Your task to perform on an android device: toggle location history Image 0: 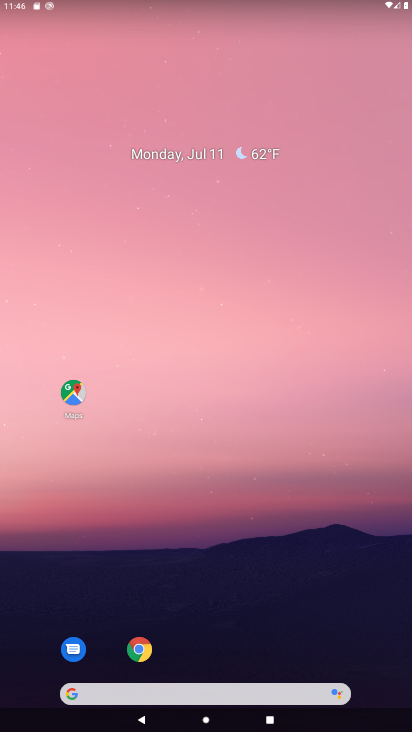
Step 0: click (75, 393)
Your task to perform on an android device: toggle location history Image 1: 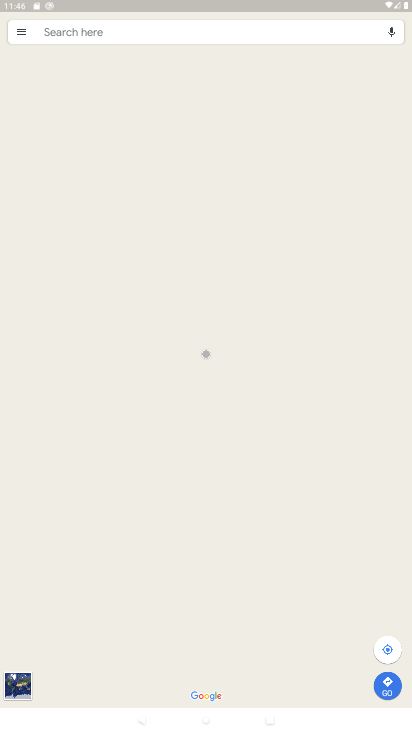
Step 1: click (19, 30)
Your task to perform on an android device: toggle location history Image 2: 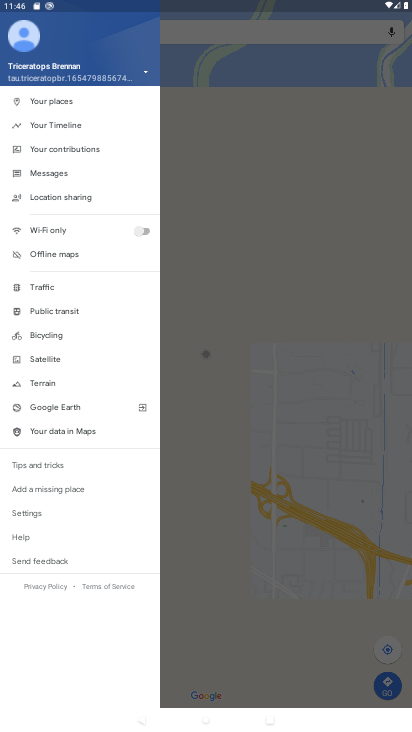
Step 2: click (55, 122)
Your task to perform on an android device: toggle location history Image 3: 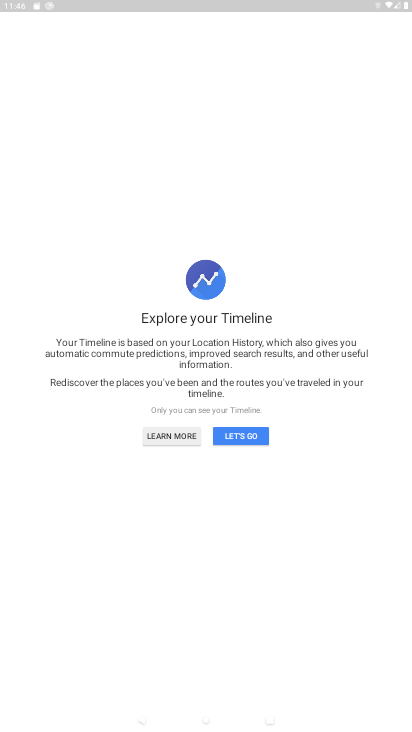
Step 3: click (238, 432)
Your task to perform on an android device: toggle location history Image 4: 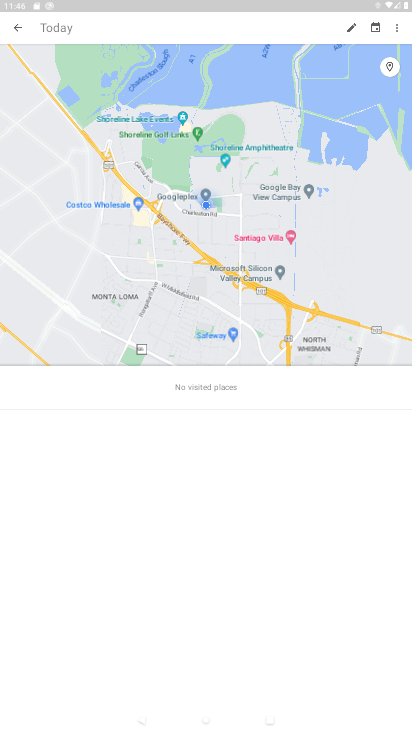
Step 4: click (399, 31)
Your task to perform on an android device: toggle location history Image 5: 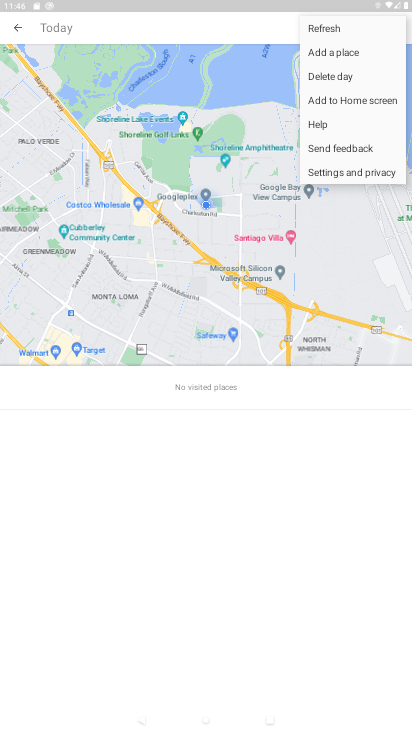
Step 5: click (354, 167)
Your task to perform on an android device: toggle location history Image 6: 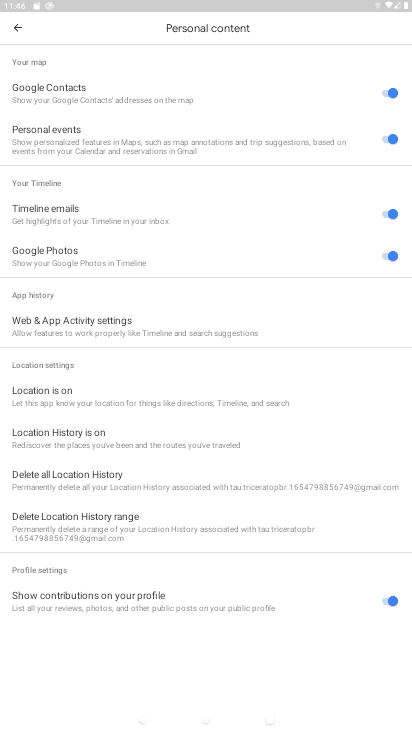
Step 6: click (80, 433)
Your task to perform on an android device: toggle location history Image 7: 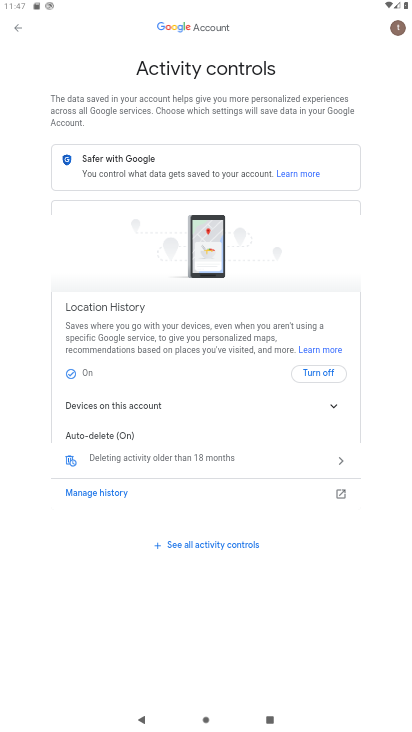
Step 7: click (310, 372)
Your task to perform on an android device: toggle location history Image 8: 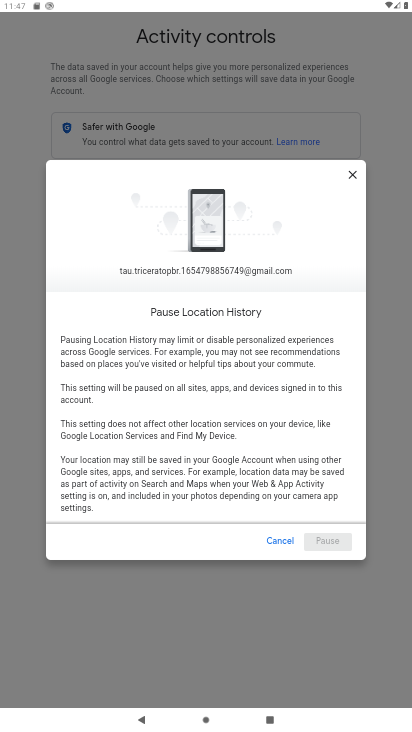
Step 8: drag from (265, 477) to (253, 309)
Your task to perform on an android device: toggle location history Image 9: 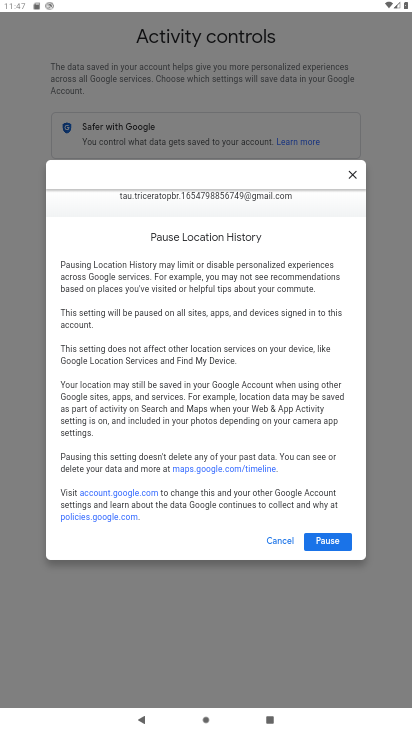
Step 9: click (329, 543)
Your task to perform on an android device: toggle location history Image 10: 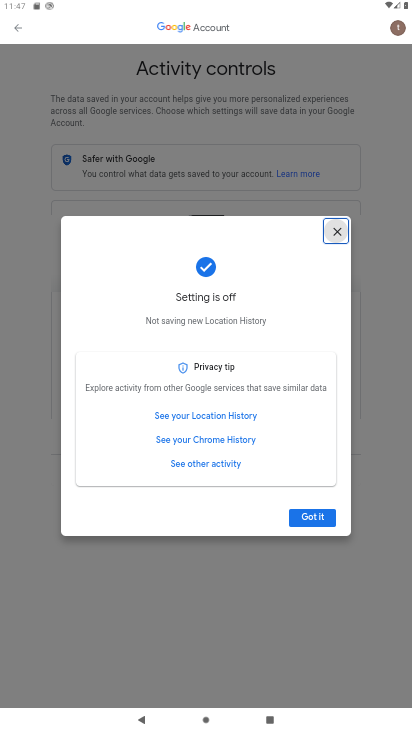
Step 10: click (315, 522)
Your task to perform on an android device: toggle location history Image 11: 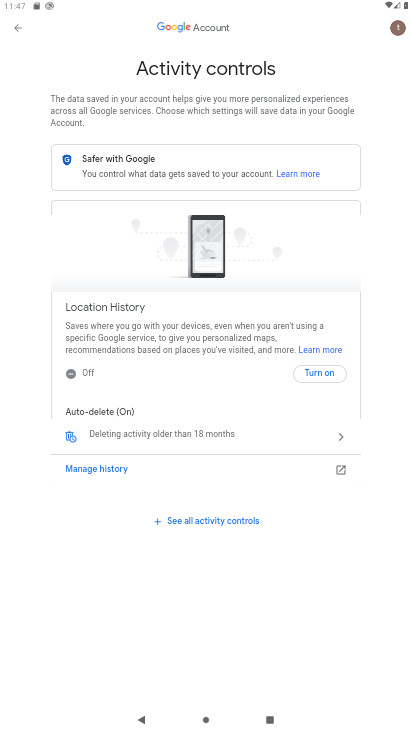
Step 11: task complete